Your task to perform on an android device: Open Reddit.com Image 0: 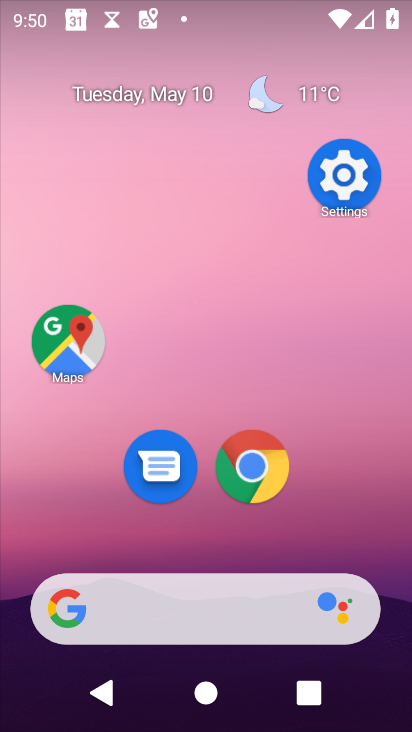
Step 0: click (257, 470)
Your task to perform on an android device: Open Reddit.com Image 1: 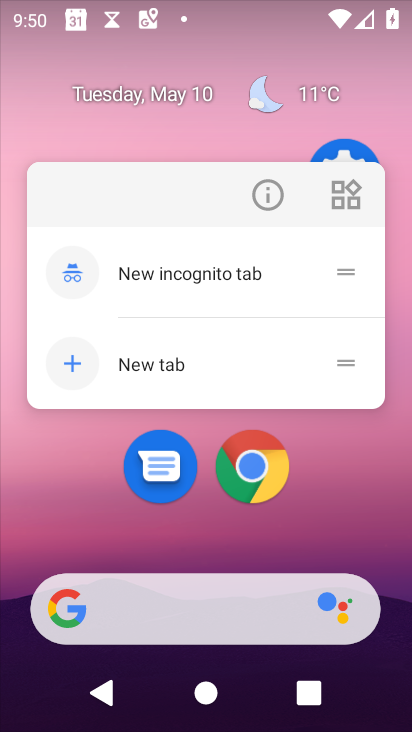
Step 1: click (257, 469)
Your task to perform on an android device: Open Reddit.com Image 2: 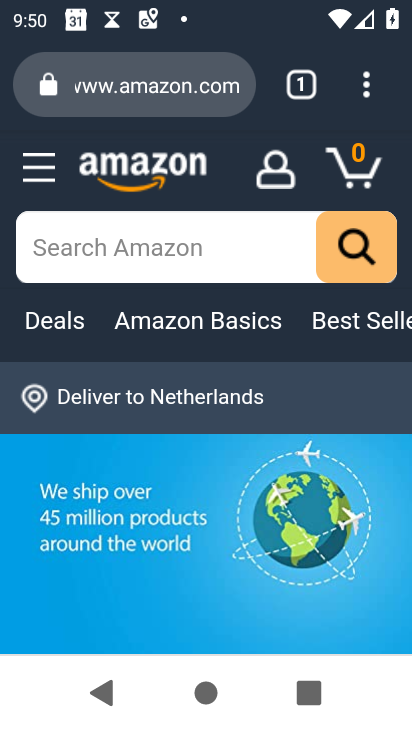
Step 2: click (97, 89)
Your task to perform on an android device: Open Reddit.com Image 3: 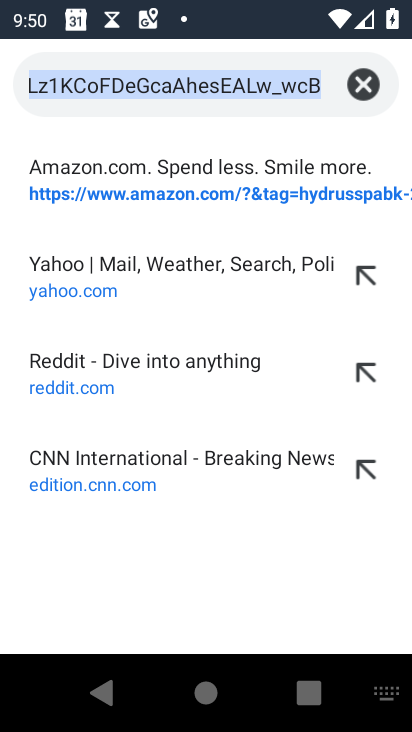
Step 3: type "reddit.com"
Your task to perform on an android device: Open Reddit.com Image 4: 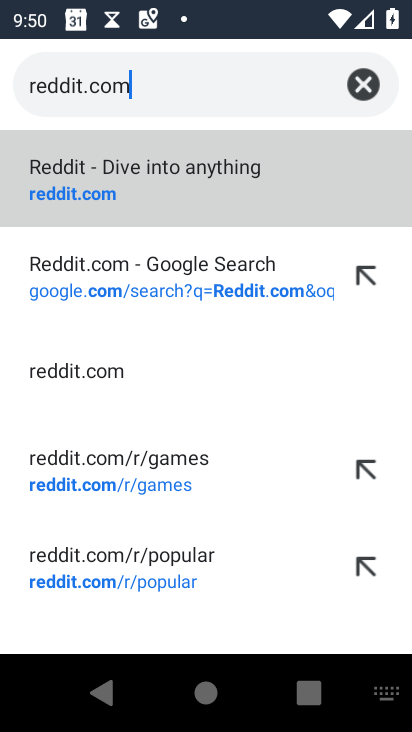
Step 4: click (62, 181)
Your task to perform on an android device: Open Reddit.com Image 5: 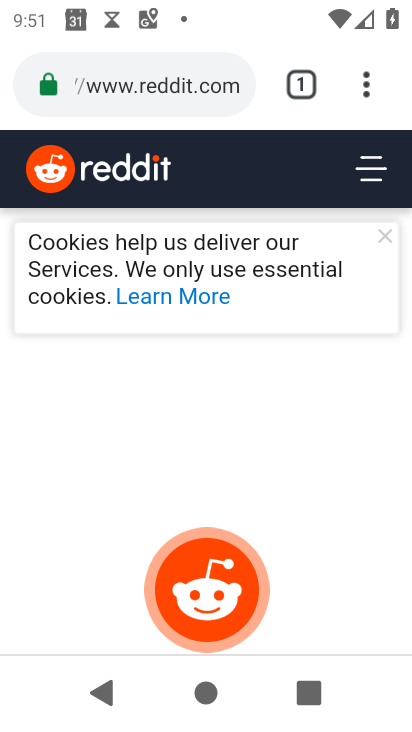
Step 5: task complete